Your task to perform on an android device: Go to sound settings Image 0: 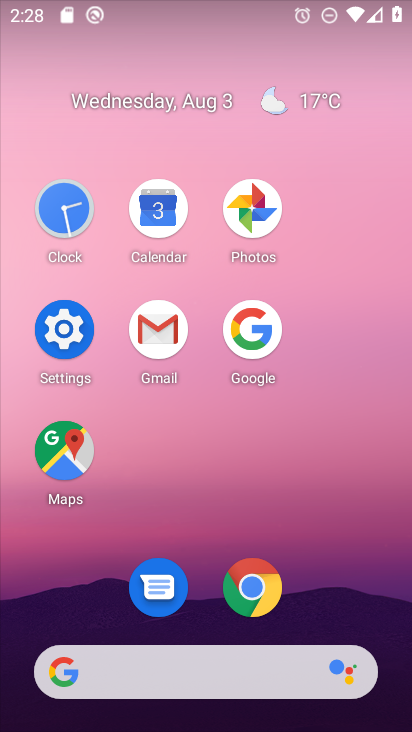
Step 0: click (51, 321)
Your task to perform on an android device: Go to sound settings Image 1: 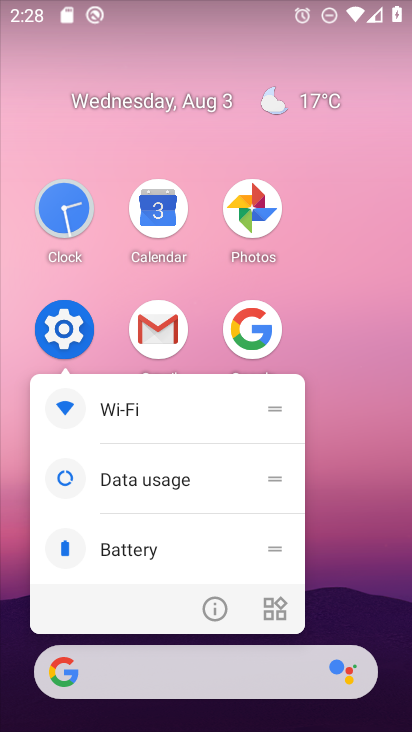
Step 1: click (51, 321)
Your task to perform on an android device: Go to sound settings Image 2: 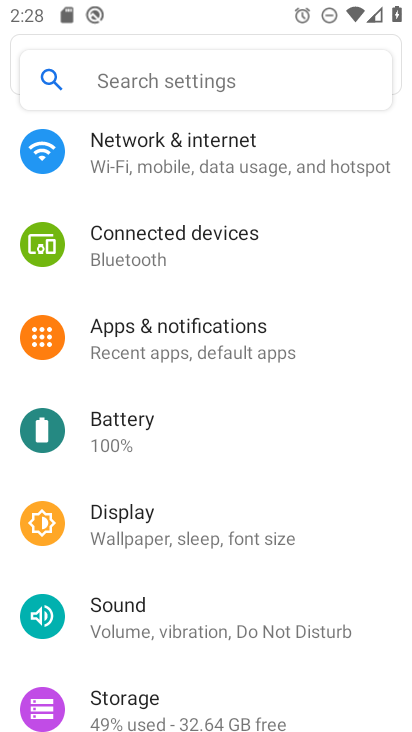
Step 2: drag from (197, 499) to (206, 238)
Your task to perform on an android device: Go to sound settings Image 3: 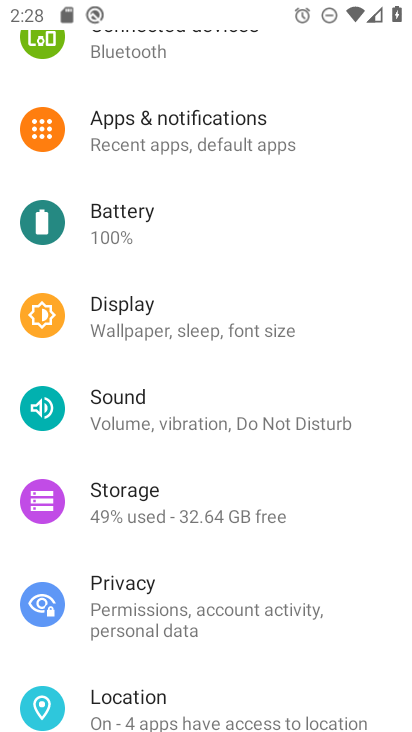
Step 3: click (200, 388)
Your task to perform on an android device: Go to sound settings Image 4: 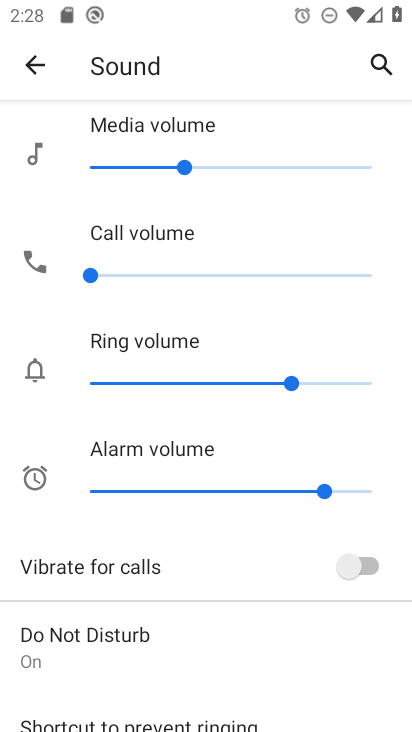
Step 4: task complete